Your task to perform on an android device: turn on the 12-hour format for clock Image 0: 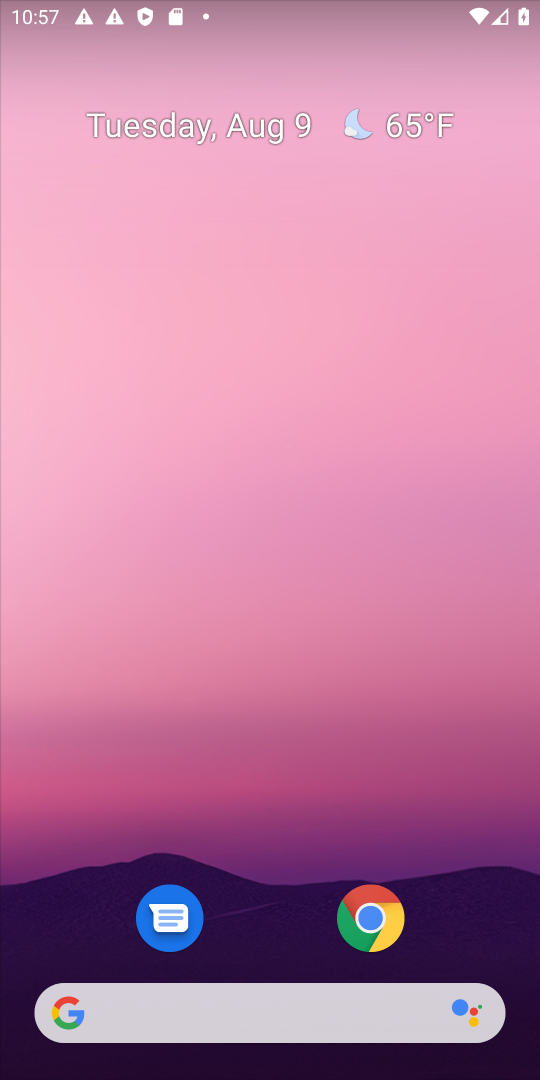
Step 0: drag from (258, 704) to (347, 162)
Your task to perform on an android device: turn on the 12-hour format for clock Image 1: 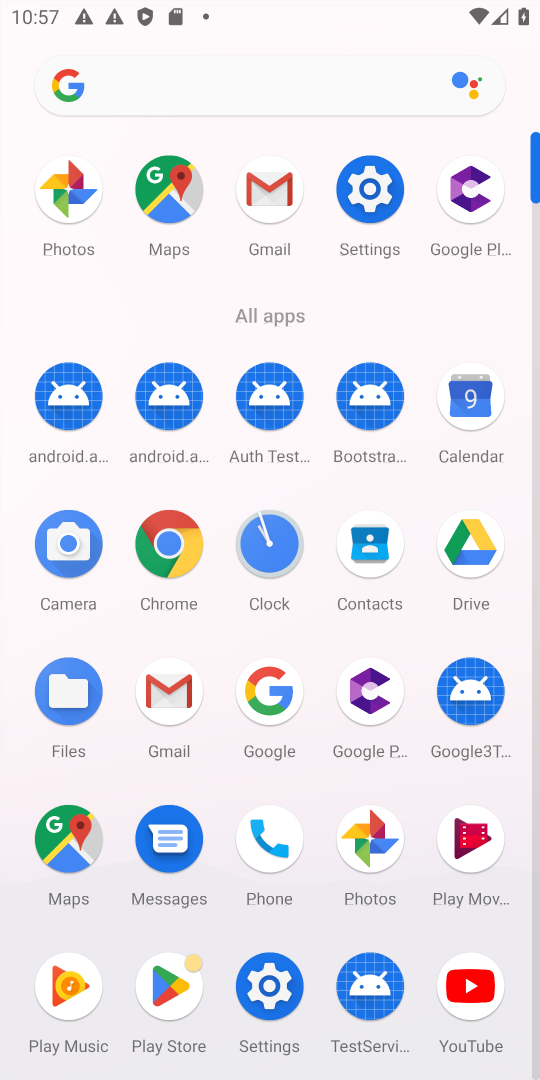
Step 1: click (274, 547)
Your task to perform on an android device: turn on the 12-hour format for clock Image 2: 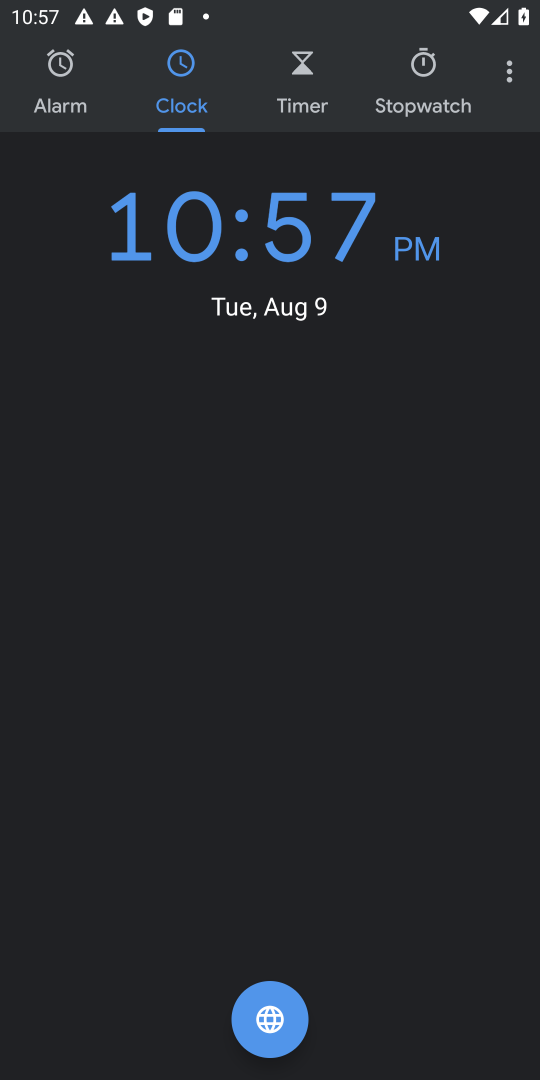
Step 2: click (508, 69)
Your task to perform on an android device: turn on the 12-hour format for clock Image 3: 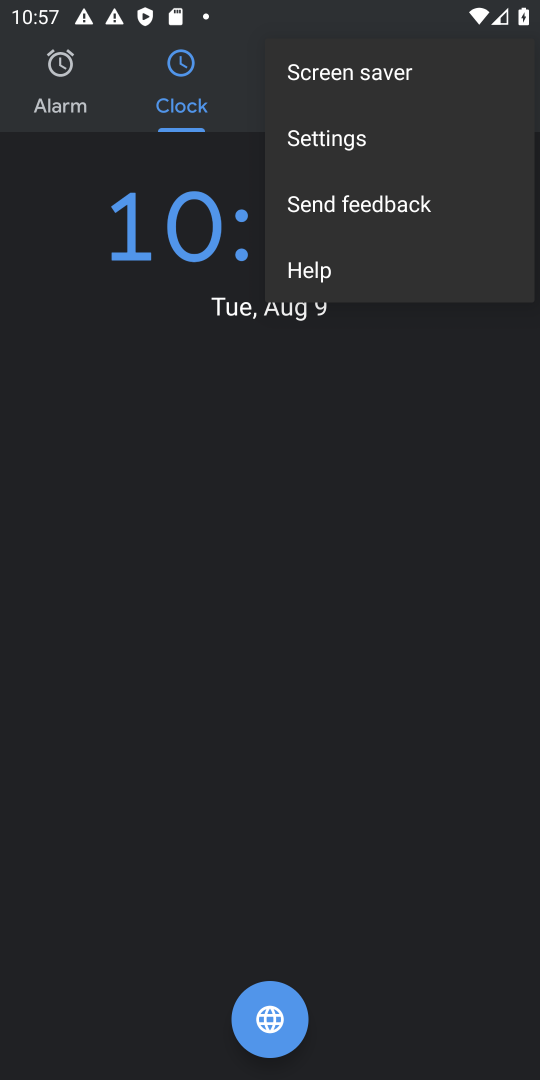
Step 3: click (403, 152)
Your task to perform on an android device: turn on the 12-hour format for clock Image 4: 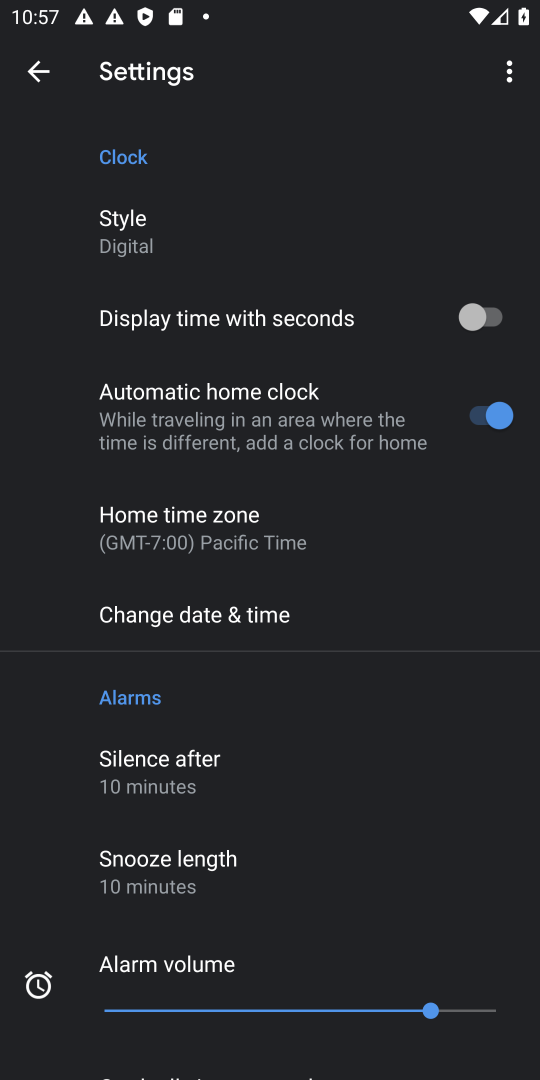
Step 4: click (245, 625)
Your task to perform on an android device: turn on the 12-hour format for clock Image 5: 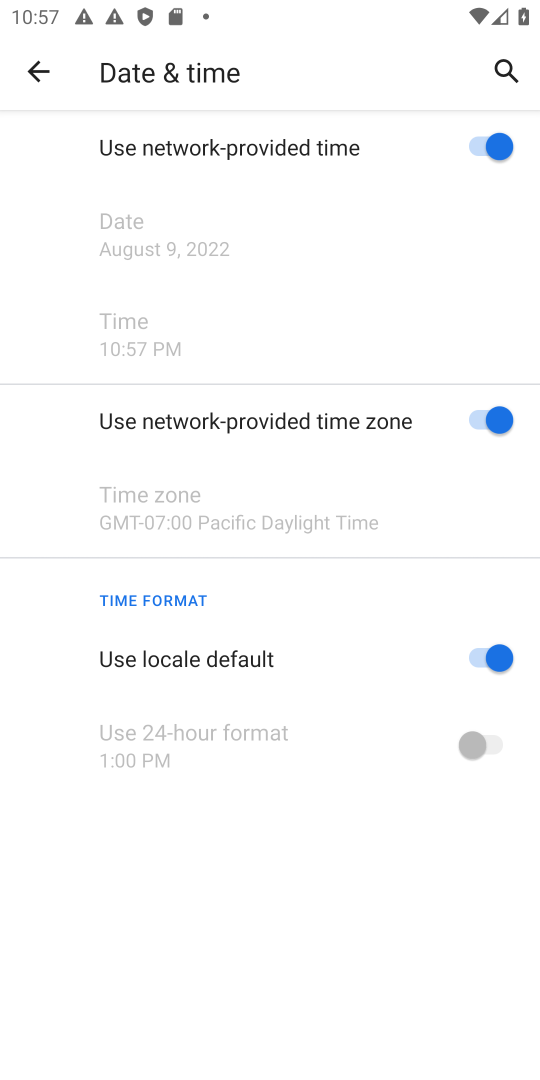
Step 5: task complete